Your task to perform on an android device: turn off notifications settings in the gmail app Image 0: 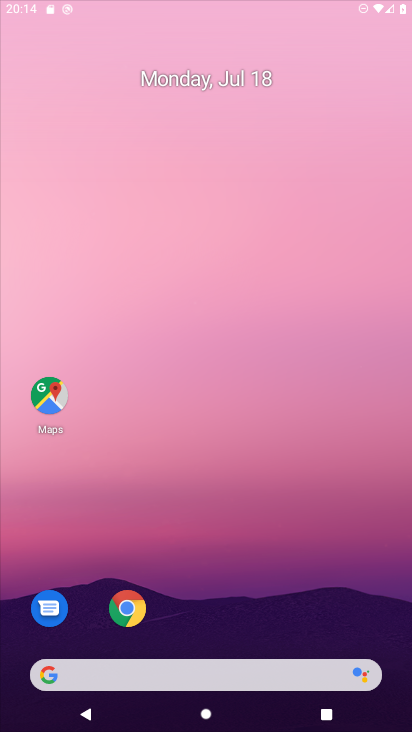
Step 0: drag from (202, 651) to (187, 109)
Your task to perform on an android device: turn off notifications settings in the gmail app Image 1: 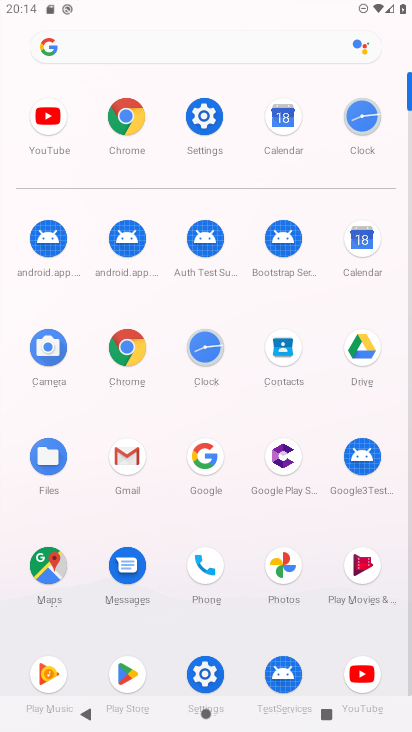
Step 1: click (126, 459)
Your task to perform on an android device: turn off notifications settings in the gmail app Image 2: 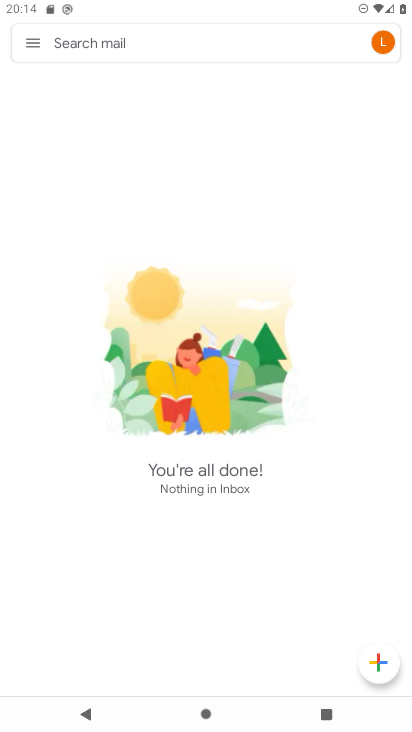
Step 2: click (30, 40)
Your task to perform on an android device: turn off notifications settings in the gmail app Image 3: 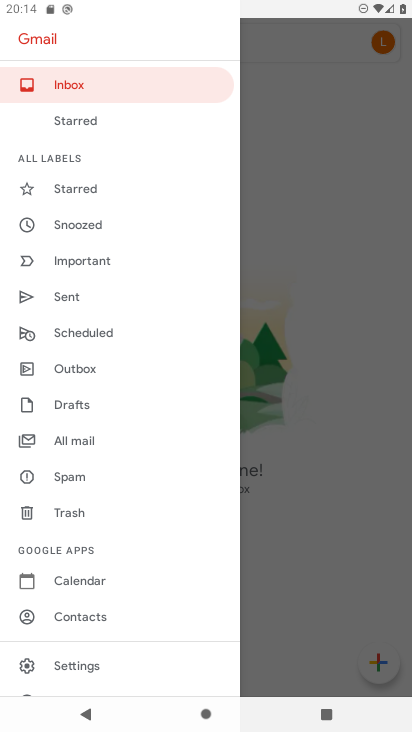
Step 3: click (81, 673)
Your task to perform on an android device: turn off notifications settings in the gmail app Image 4: 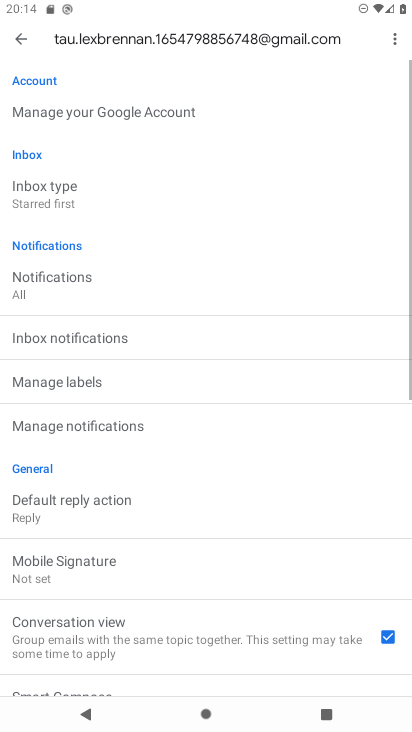
Step 4: click (68, 286)
Your task to perform on an android device: turn off notifications settings in the gmail app Image 5: 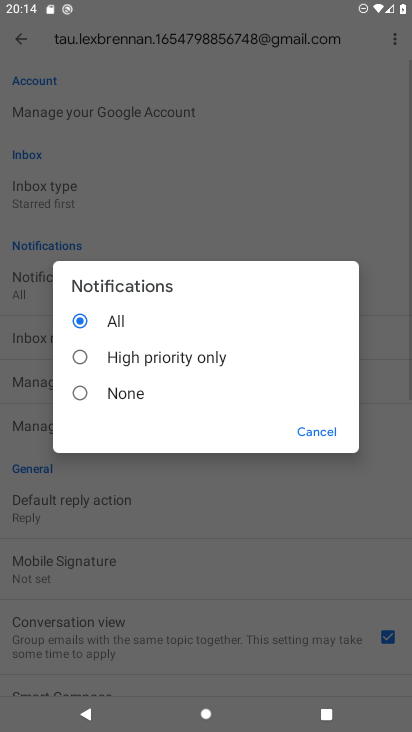
Step 5: click (82, 396)
Your task to perform on an android device: turn off notifications settings in the gmail app Image 6: 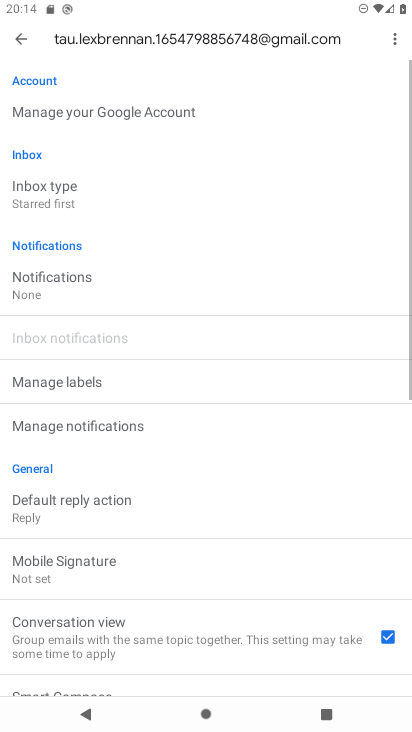
Step 6: task complete